Your task to perform on an android device: Go to Amazon Image 0: 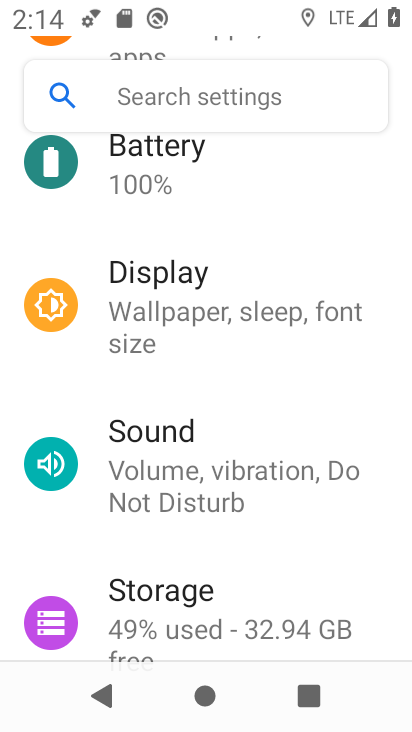
Step 0: press home button
Your task to perform on an android device: Go to Amazon Image 1: 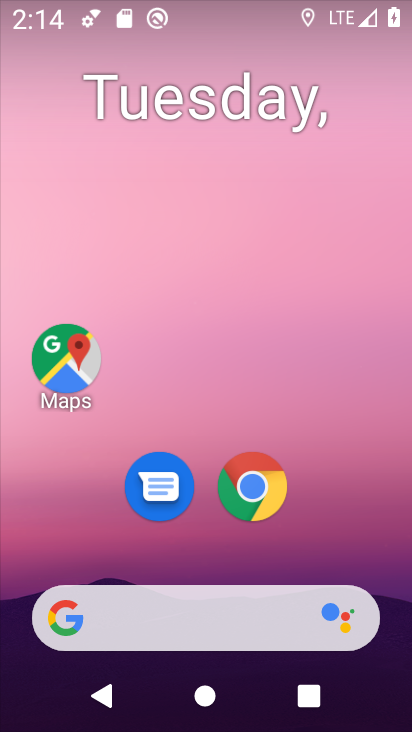
Step 1: drag from (351, 510) to (330, 59)
Your task to perform on an android device: Go to Amazon Image 2: 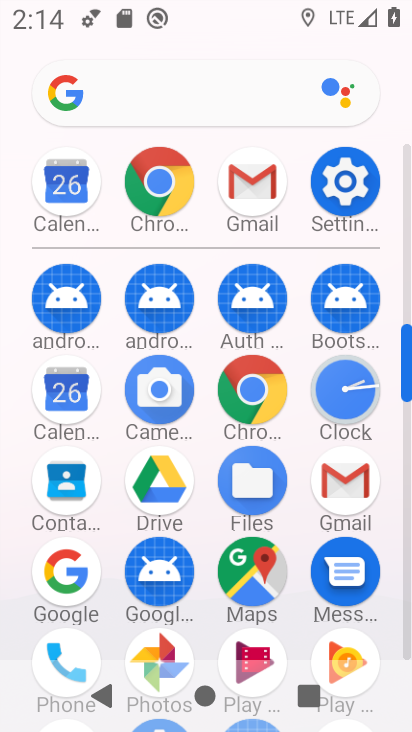
Step 2: click (253, 396)
Your task to perform on an android device: Go to Amazon Image 3: 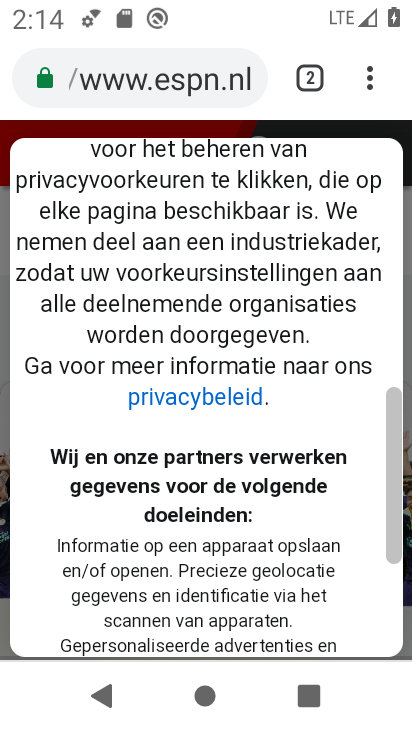
Step 3: click (202, 85)
Your task to perform on an android device: Go to Amazon Image 4: 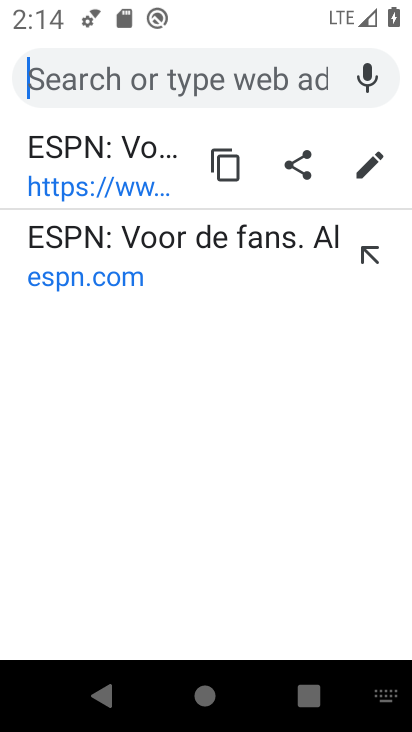
Step 4: type "amazon"
Your task to perform on an android device: Go to Amazon Image 5: 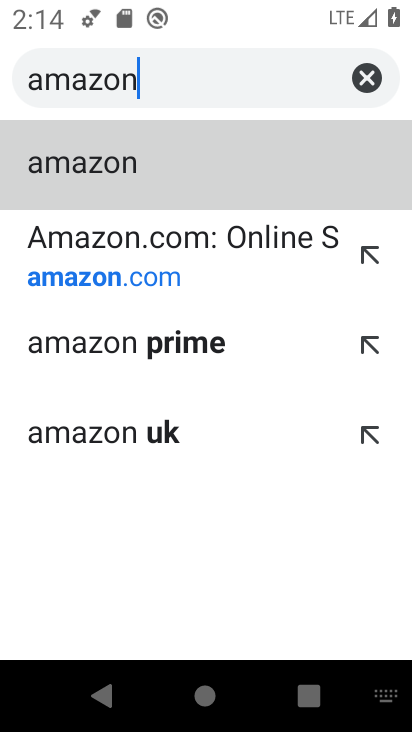
Step 5: click (247, 183)
Your task to perform on an android device: Go to Amazon Image 6: 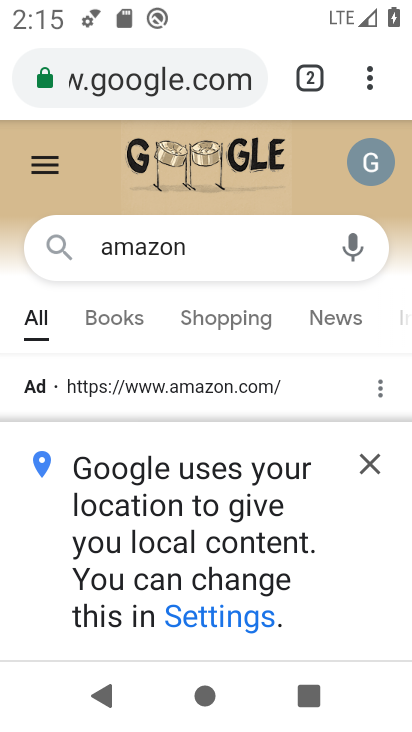
Step 6: task complete